Your task to perform on an android device: add a label to a message in the gmail app Image 0: 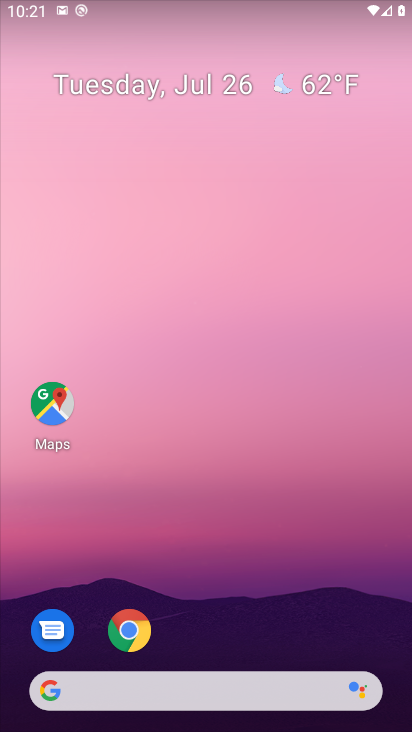
Step 0: drag from (234, 637) to (282, 142)
Your task to perform on an android device: add a label to a message in the gmail app Image 1: 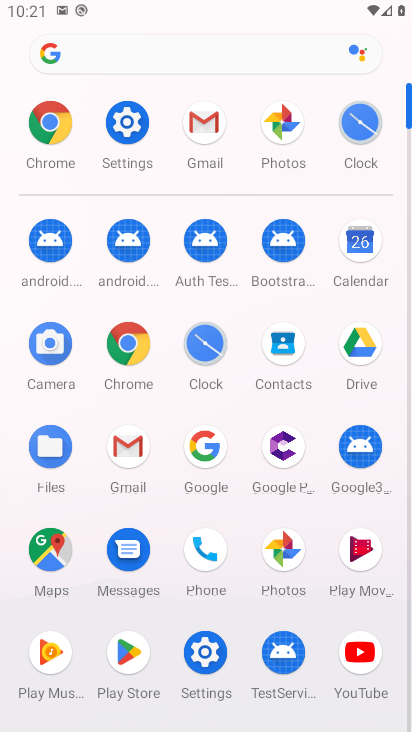
Step 1: click (126, 444)
Your task to perform on an android device: add a label to a message in the gmail app Image 2: 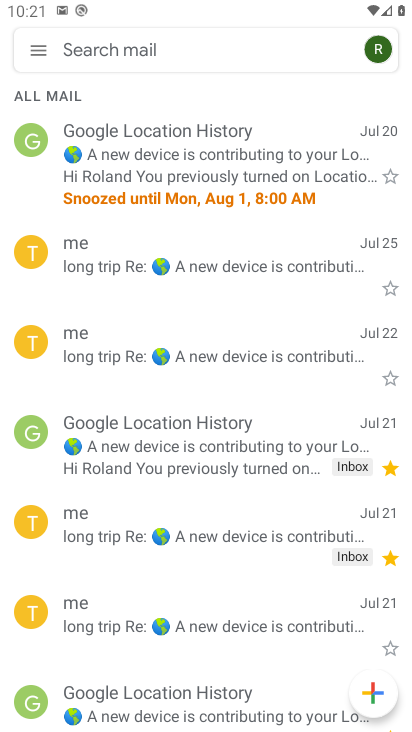
Step 2: click (35, 250)
Your task to perform on an android device: add a label to a message in the gmail app Image 3: 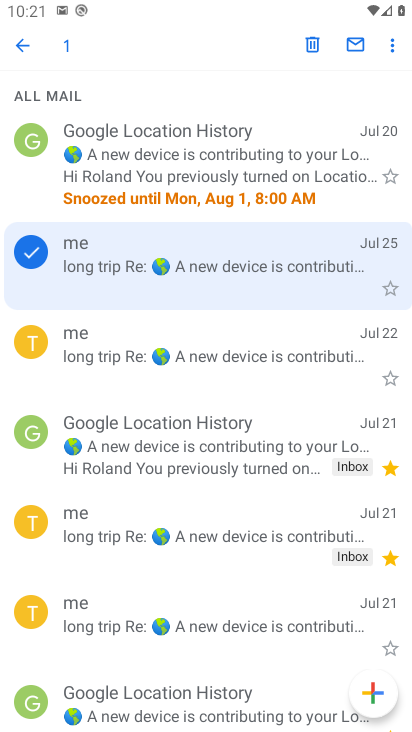
Step 3: click (393, 43)
Your task to perform on an android device: add a label to a message in the gmail app Image 4: 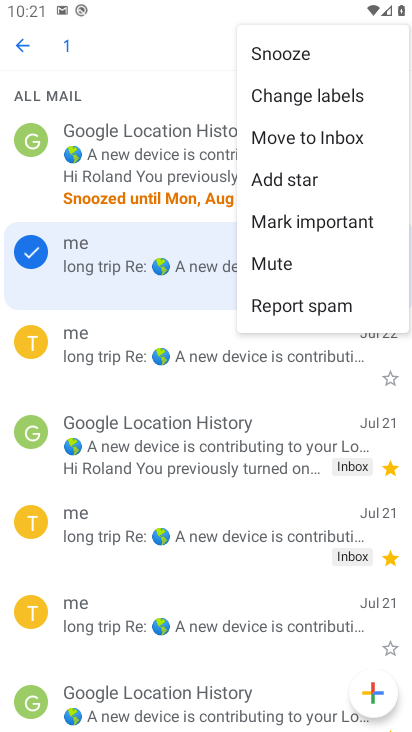
Step 4: click (330, 95)
Your task to perform on an android device: add a label to a message in the gmail app Image 5: 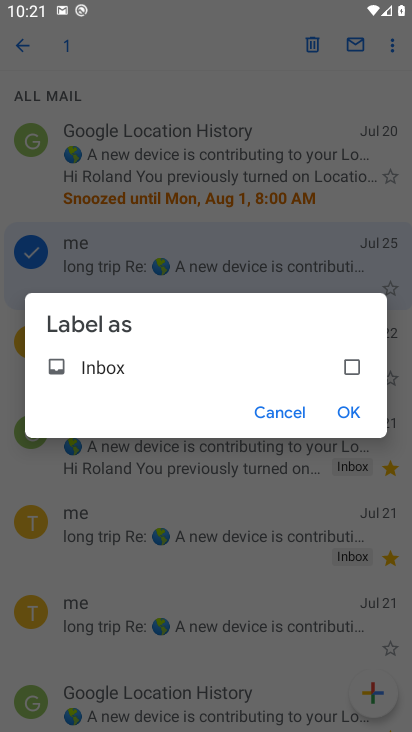
Step 5: click (351, 368)
Your task to perform on an android device: add a label to a message in the gmail app Image 6: 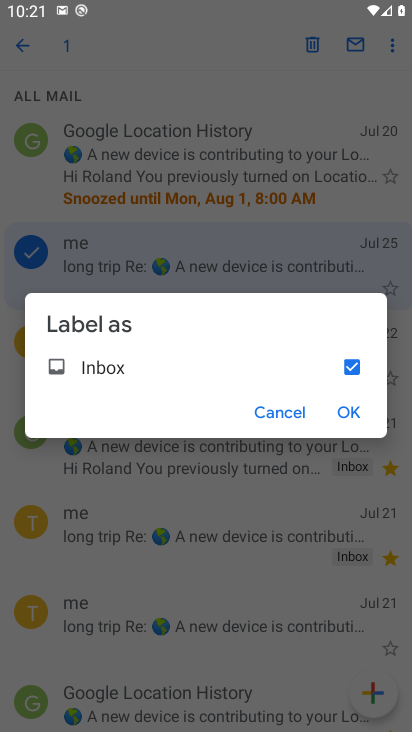
Step 6: click (351, 412)
Your task to perform on an android device: add a label to a message in the gmail app Image 7: 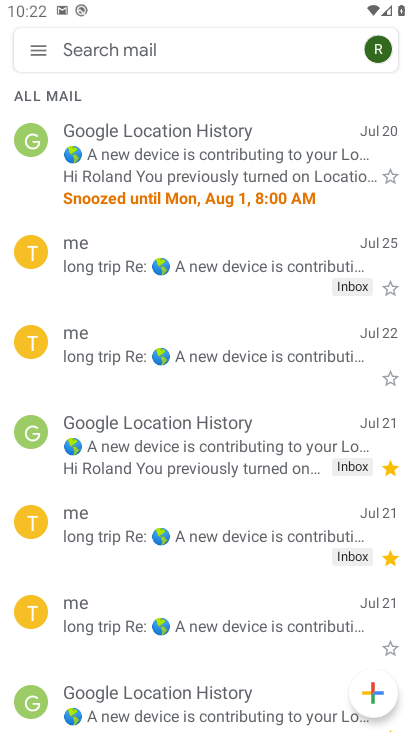
Step 7: task complete